Your task to perform on an android device: What's on my calendar today? Image 0: 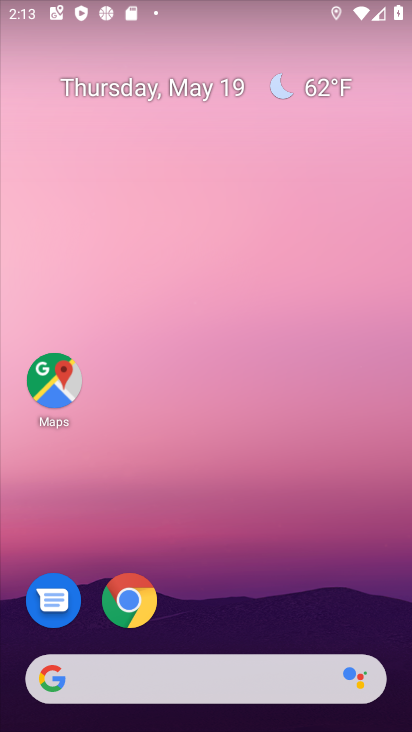
Step 0: press home button
Your task to perform on an android device: What's on my calendar today? Image 1: 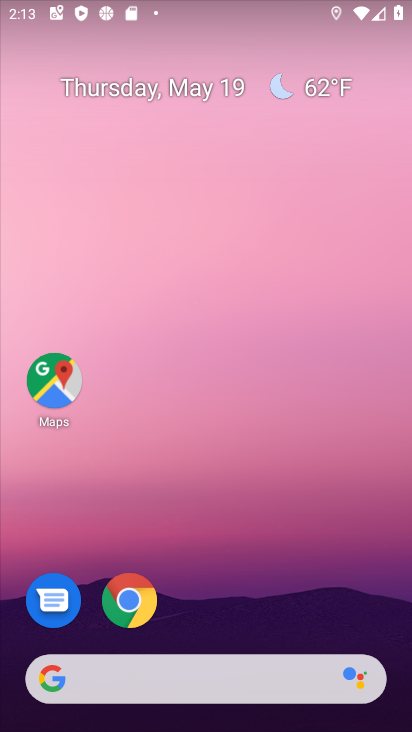
Step 1: drag from (34, 516) to (163, 193)
Your task to perform on an android device: What's on my calendar today? Image 2: 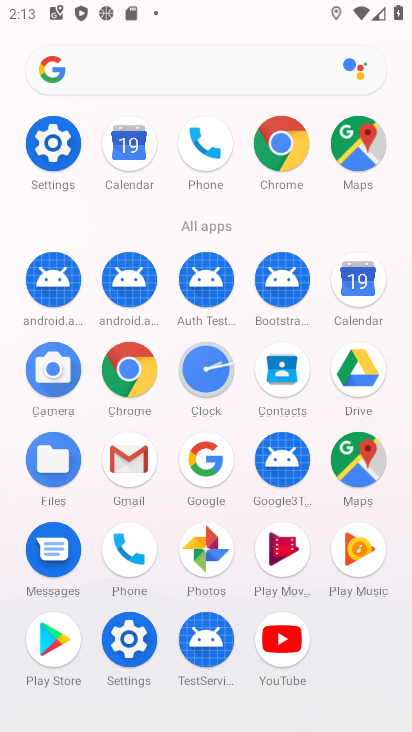
Step 2: click (127, 142)
Your task to perform on an android device: What's on my calendar today? Image 3: 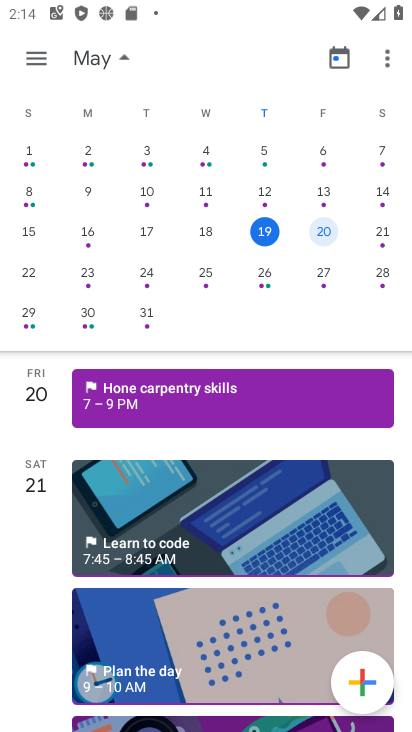
Step 3: task complete